Your task to perform on an android device: Turn on the flashlight Image 0: 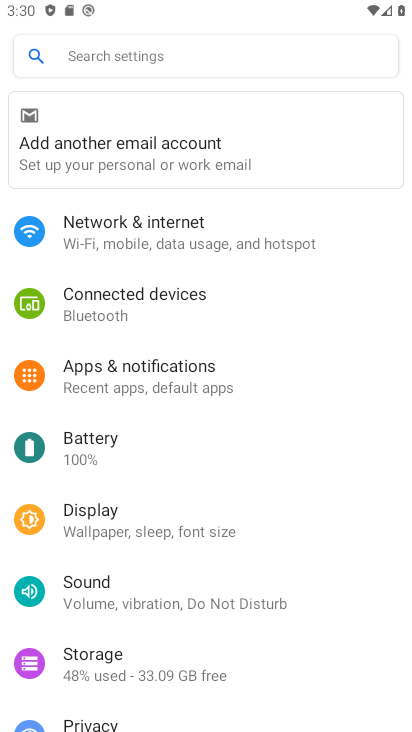
Step 0: press home button
Your task to perform on an android device: Turn on the flashlight Image 1: 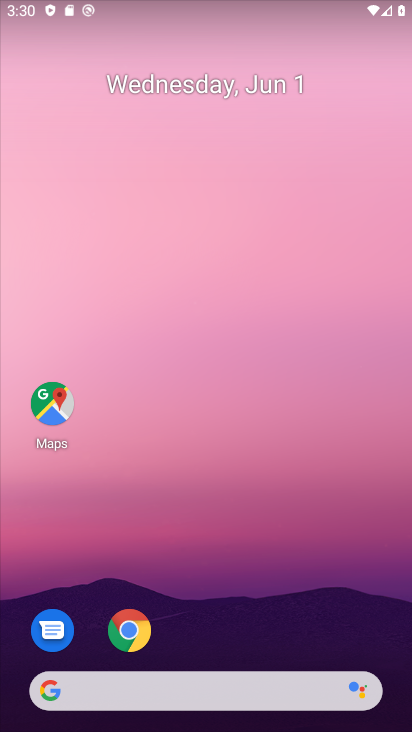
Step 1: task complete